Your task to perform on an android device: Clear all items from cart on bestbuy.com. Add "duracell triple a" to the cart on bestbuy.com Image 0: 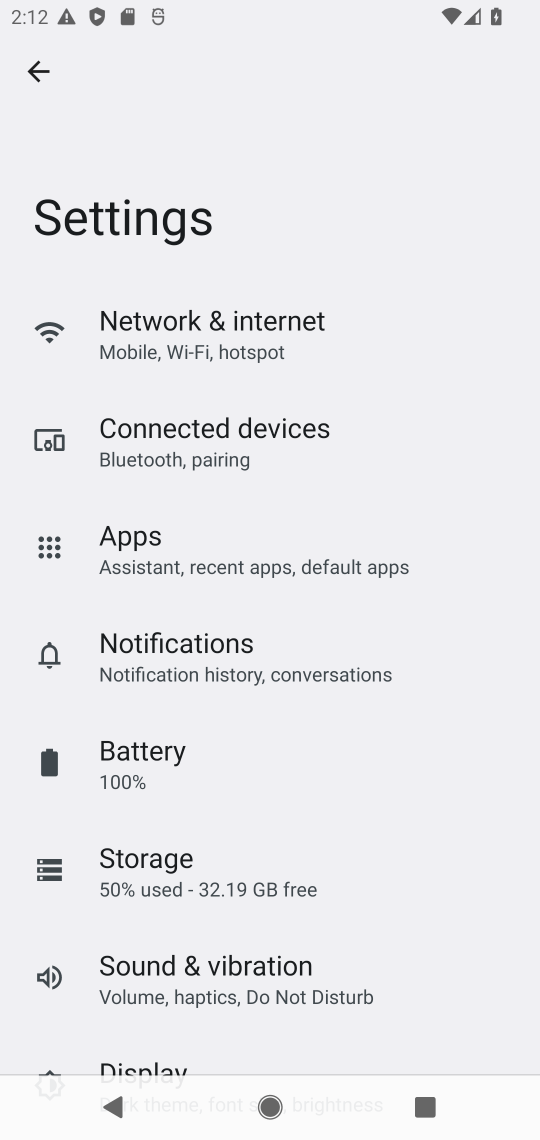
Step 0: press home button
Your task to perform on an android device: Clear all items from cart on bestbuy.com. Add "duracell triple a" to the cart on bestbuy.com Image 1: 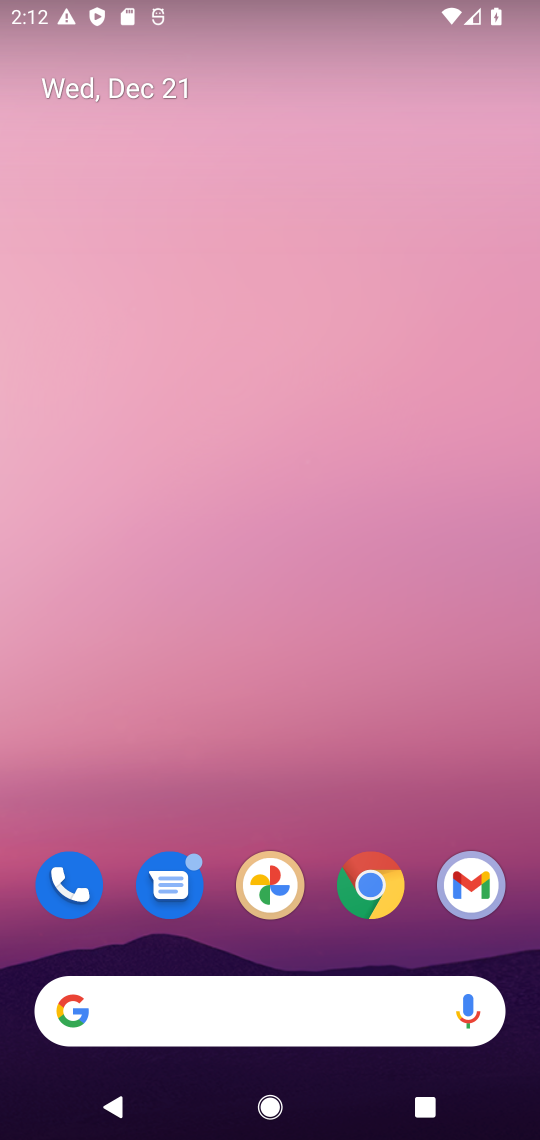
Step 1: drag from (187, 967) to (191, 679)
Your task to perform on an android device: Clear all items from cart on bestbuy.com. Add "duracell triple a" to the cart on bestbuy.com Image 2: 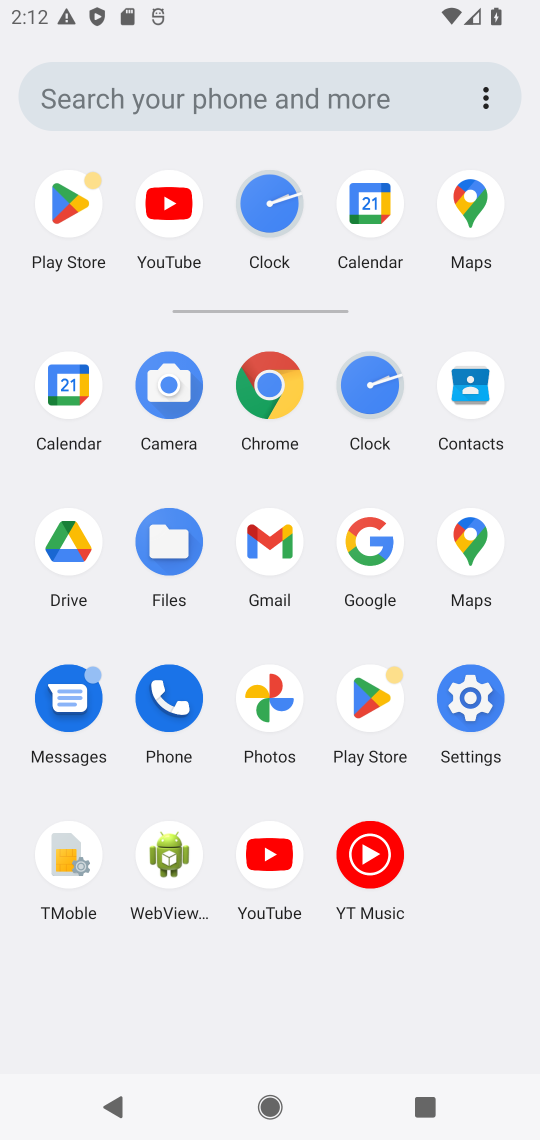
Step 2: click (360, 547)
Your task to perform on an android device: Clear all items from cart on bestbuy.com. Add "duracell triple a" to the cart on bestbuy.com Image 3: 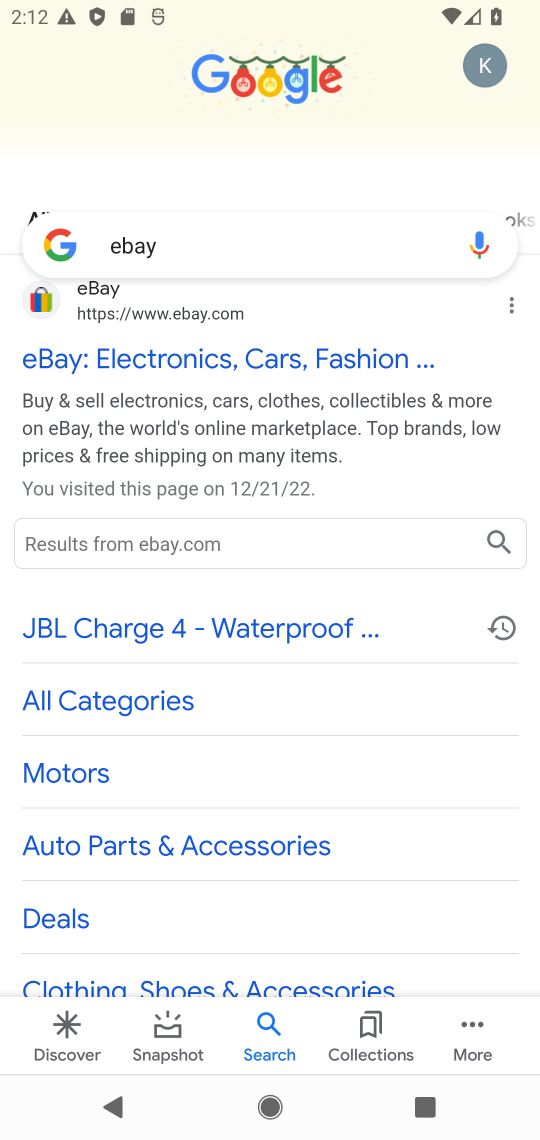
Step 3: click (144, 227)
Your task to perform on an android device: Clear all items from cart on bestbuy.com. Add "duracell triple a" to the cart on bestbuy.com Image 4: 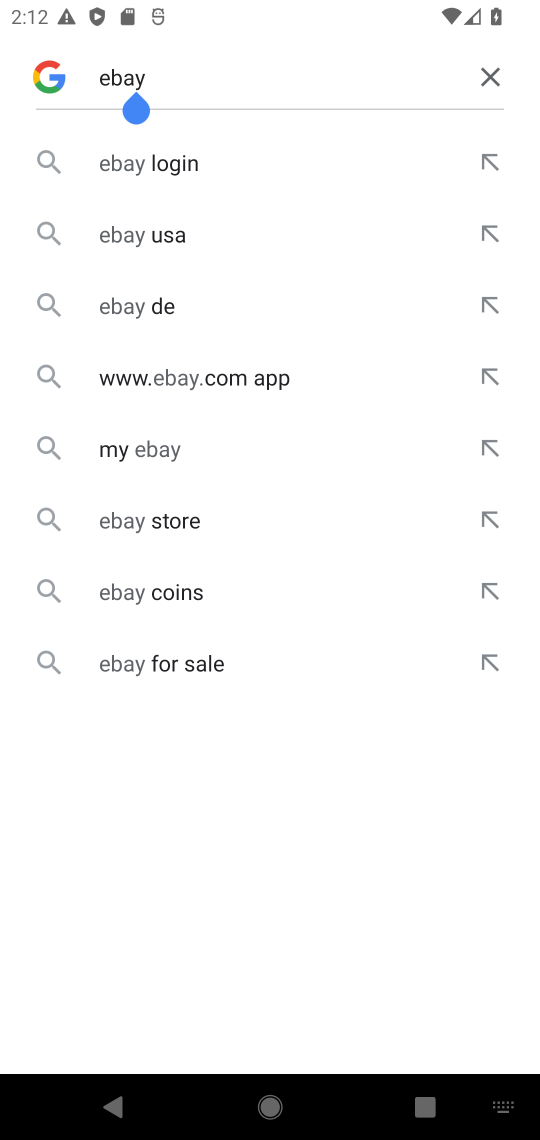
Step 4: click (488, 67)
Your task to perform on an android device: Clear all items from cart on bestbuy.com. Add "duracell triple a" to the cart on bestbuy.com Image 5: 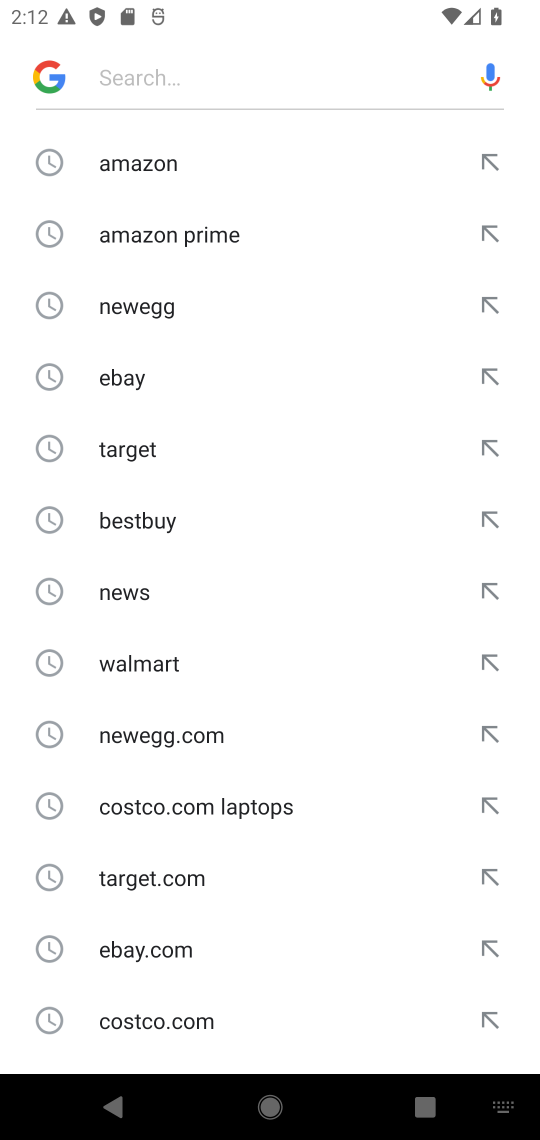
Step 5: click (134, 517)
Your task to perform on an android device: Clear all items from cart on bestbuy.com. Add "duracell triple a" to the cart on bestbuy.com Image 6: 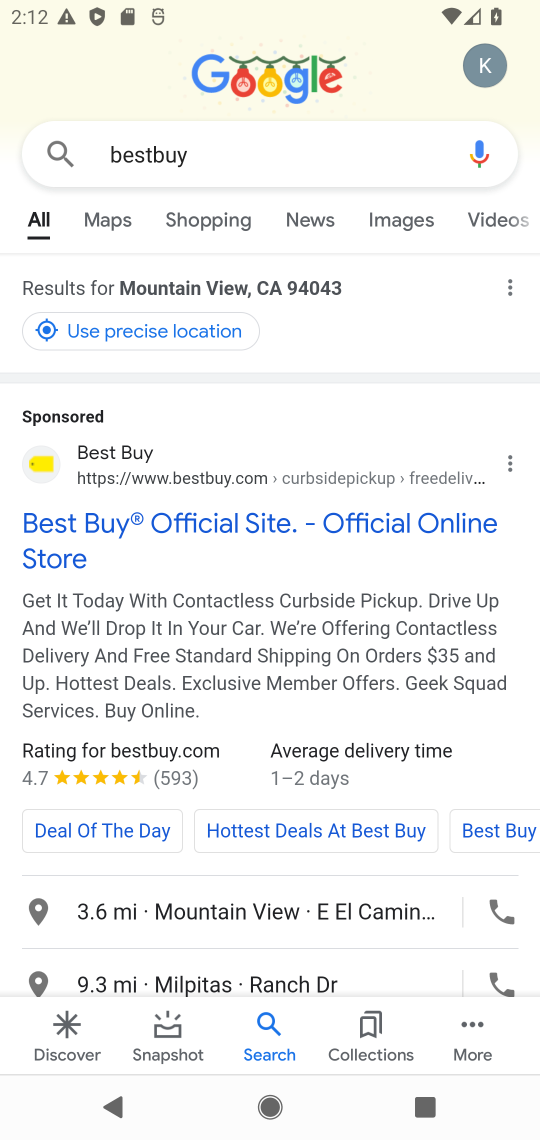
Step 6: click (197, 525)
Your task to perform on an android device: Clear all items from cart on bestbuy.com. Add "duracell triple a" to the cart on bestbuy.com Image 7: 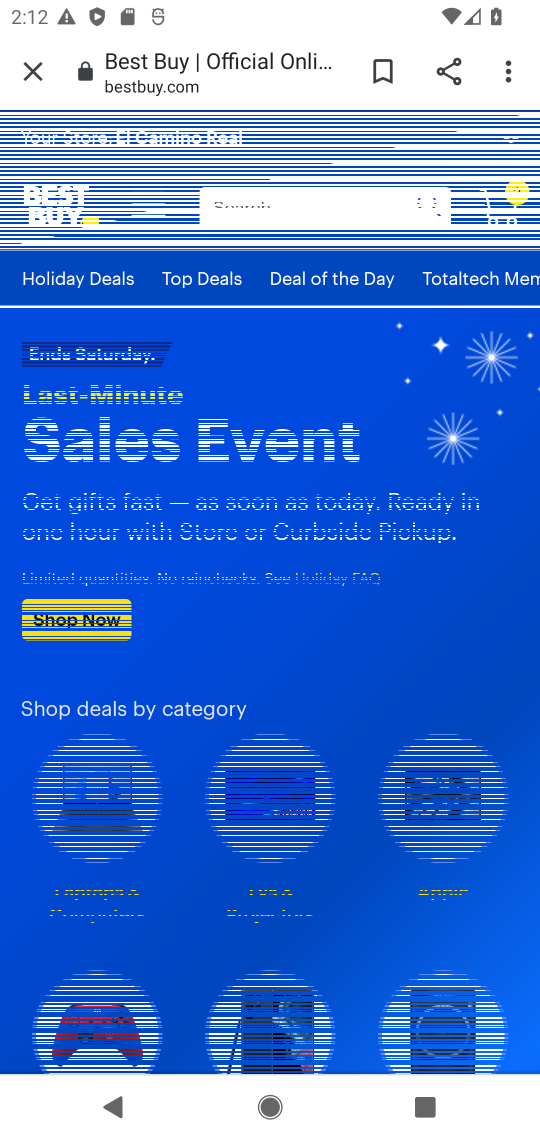
Step 7: click (262, 212)
Your task to perform on an android device: Clear all items from cart on bestbuy.com. Add "duracell triple a" to the cart on bestbuy.com Image 8: 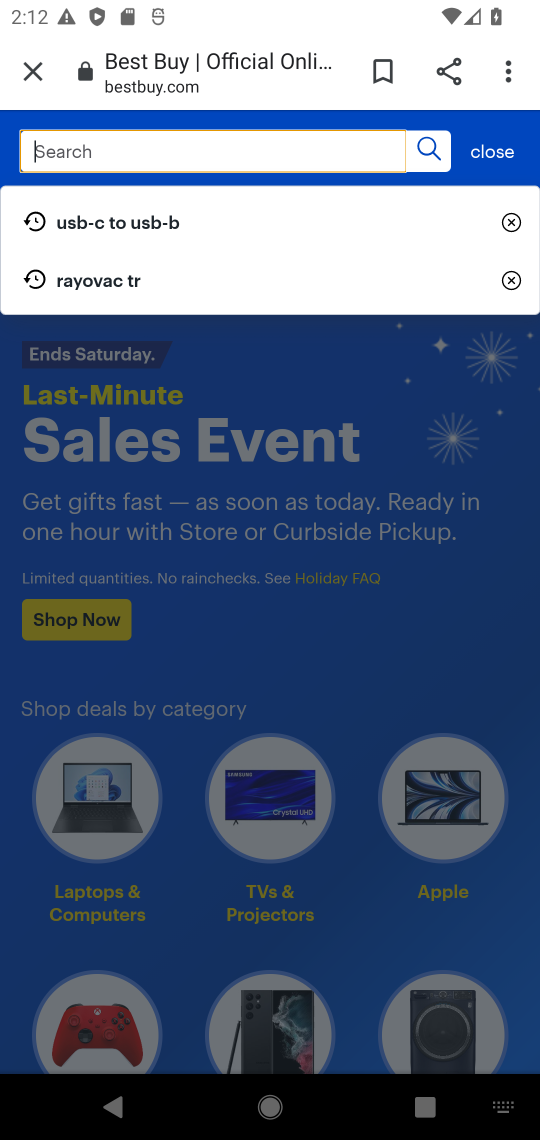
Step 8: type "duracell triple a"
Your task to perform on an android device: Clear all items from cart on bestbuy.com. Add "duracell triple a" to the cart on bestbuy.com Image 9: 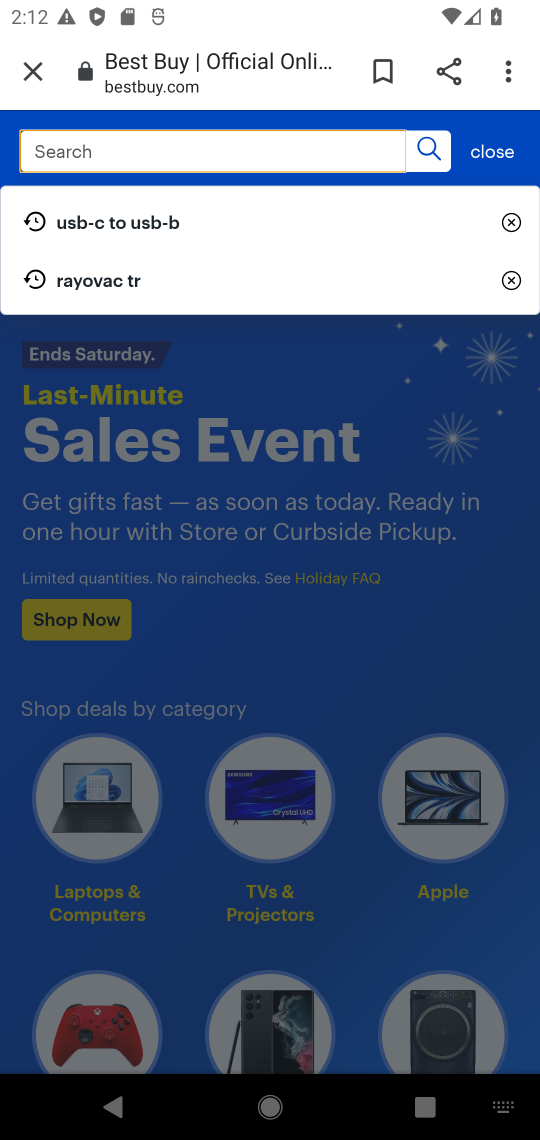
Step 9: click (433, 143)
Your task to perform on an android device: Clear all items from cart on bestbuy.com. Add "duracell triple a" to the cart on bestbuy.com Image 10: 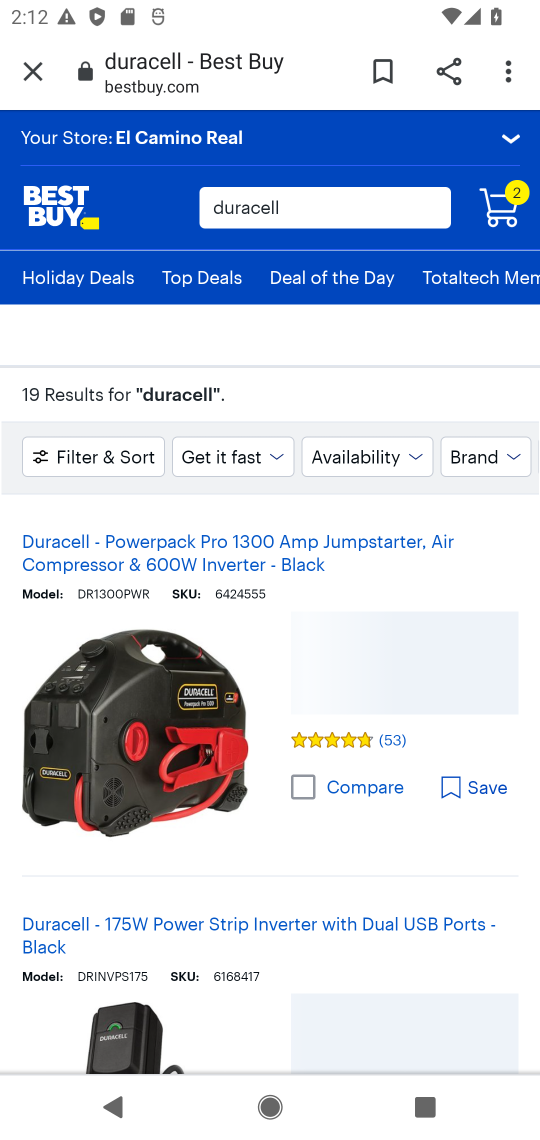
Step 10: drag from (328, 817) to (356, 465)
Your task to perform on an android device: Clear all items from cart on bestbuy.com. Add "duracell triple a" to the cart on bestbuy.com Image 11: 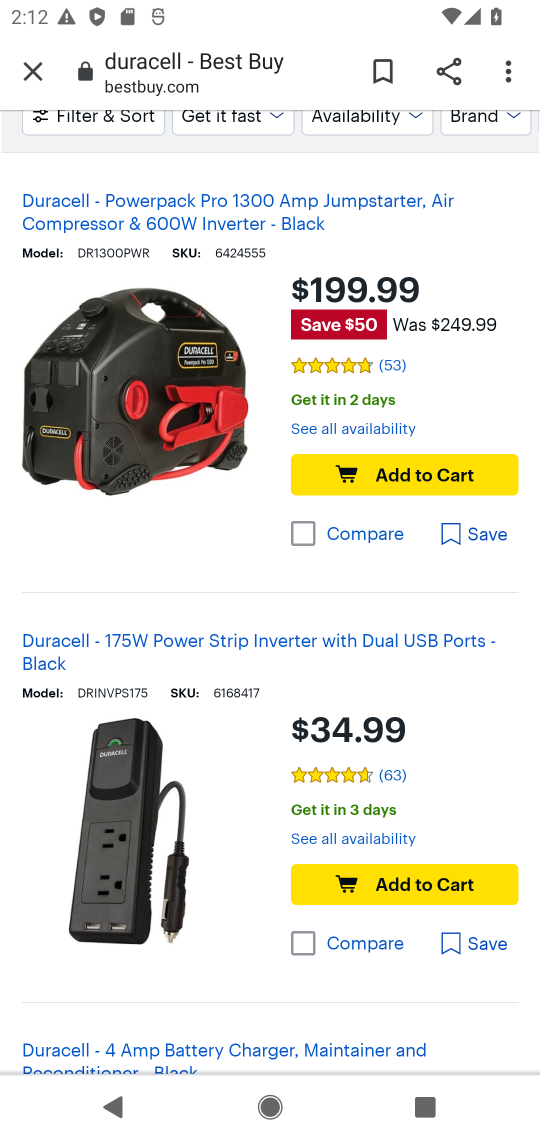
Step 11: click (432, 466)
Your task to perform on an android device: Clear all items from cart on bestbuy.com. Add "duracell triple a" to the cart on bestbuy.com Image 12: 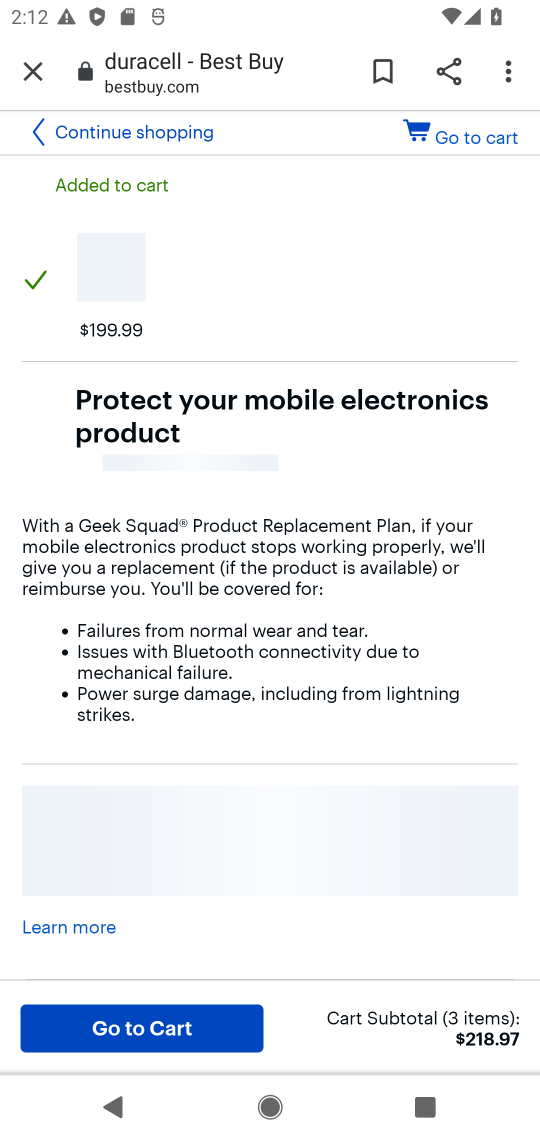
Step 12: task complete